Your task to perform on an android device: delete browsing data in the chrome app Image 0: 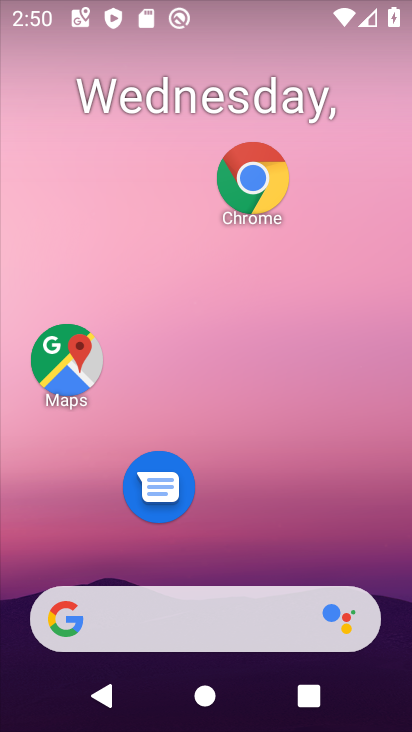
Step 0: click (257, 181)
Your task to perform on an android device: delete browsing data in the chrome app Image 1: 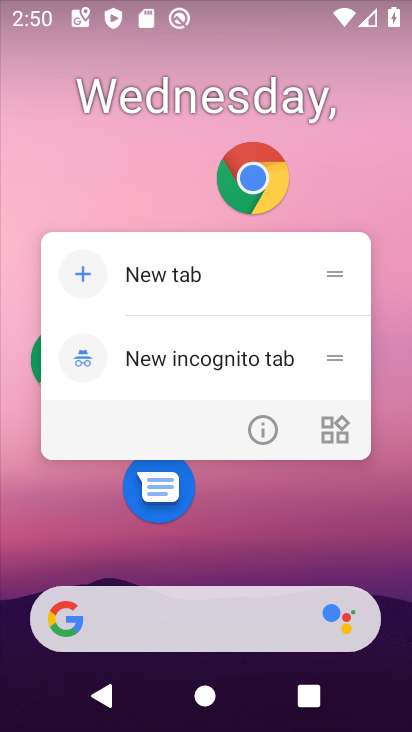
Step 1: click (252, 177)
Your task to perform on an android device: delete browsing data in the chrome app Image 2: 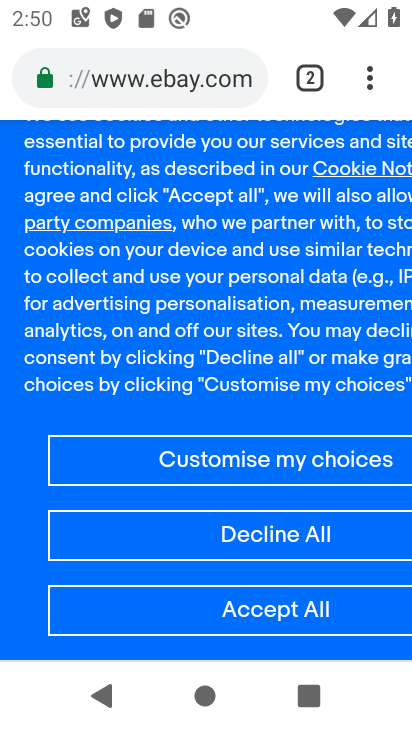
Step 2: click (366, 65)
Your task to perform on an android device: delete browsing data in the chrome app Image 3: 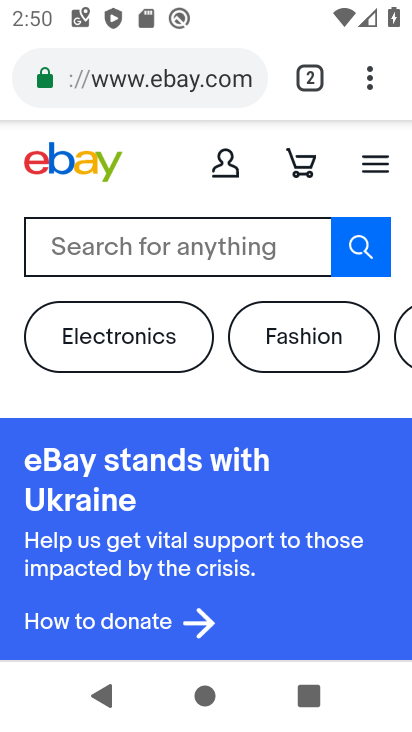
Step 3: click (365, 89)
Your task to perform on an android device: delete browsing data in the chrome app Image 4: 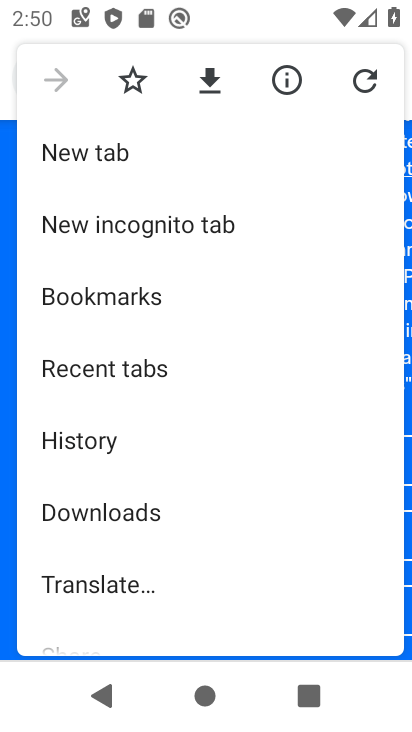
Step 4: click (91, 440)
Your task to perform on an android device: delete browsing data in the chrome app Image 5: 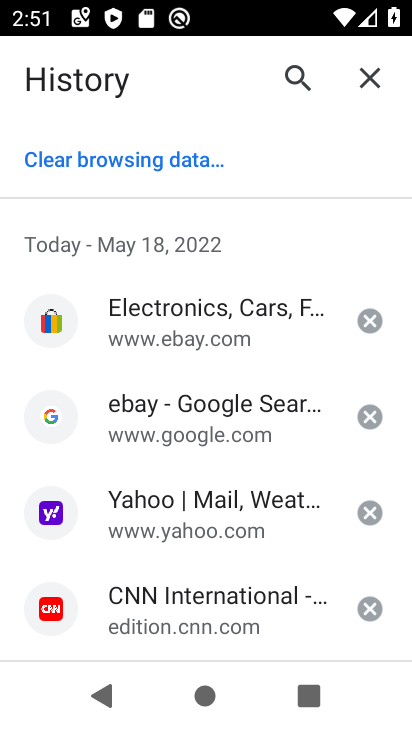
Step 5: click (167, 152)
Your task to perform on an android device: delete browsing data in the chrome app Image 6: 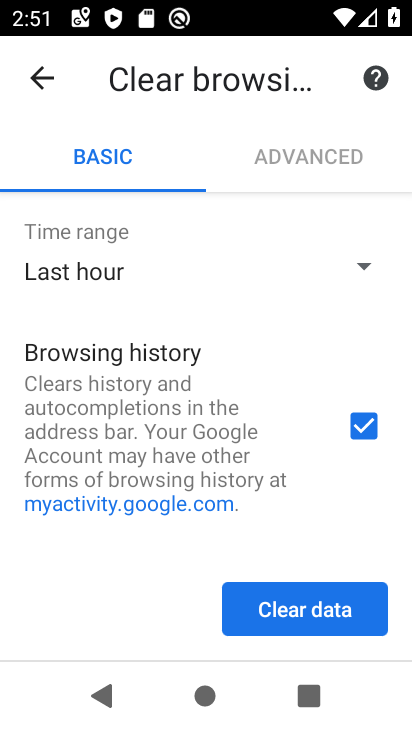
Step 6: click (300, 622)
Your task to perform on an android device: delete browsing data in the chrome app Image 7: 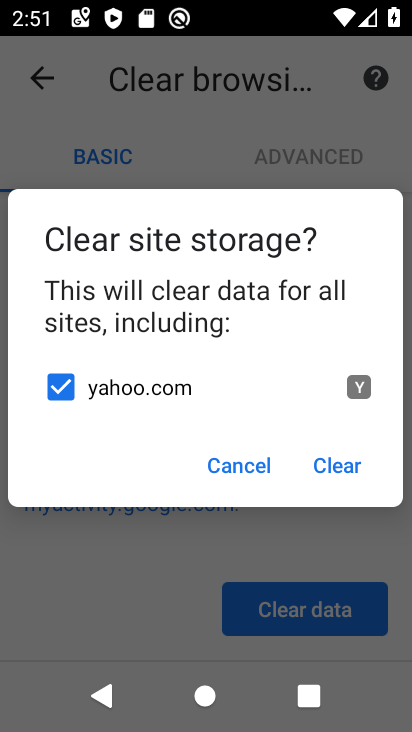
Step 7: click (339, 468)
Your task to perform on an android device: delete browsing data in the chrome app Image 8: 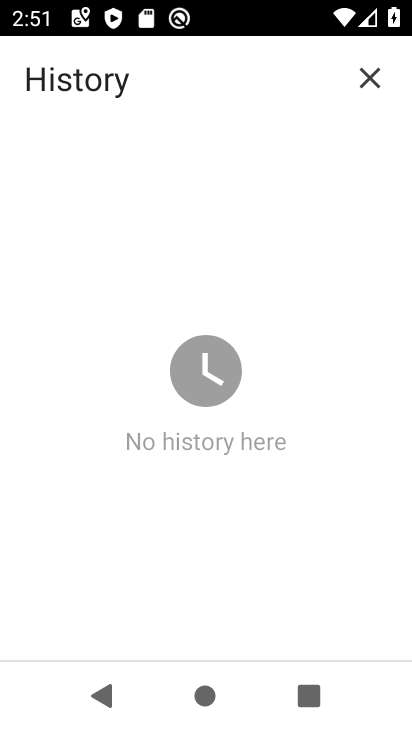
Step 8: task complete